Your task to perform on an android device: Open accessibility settings Image 0: 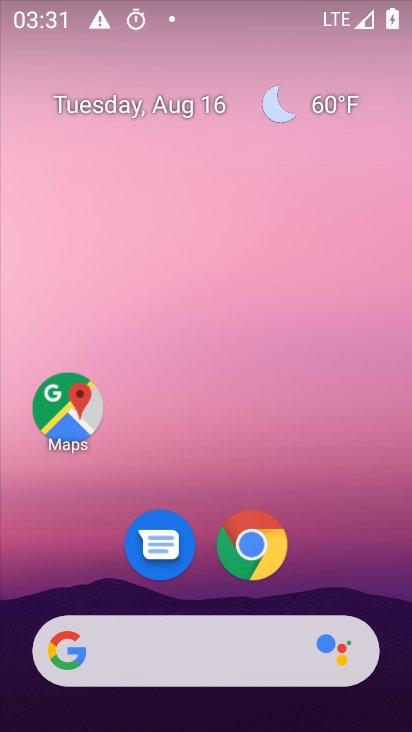
Step 0: drag from (207, 640) to (205, 299)
Your task to perform on an android device: Open accessibility settings Image 1: 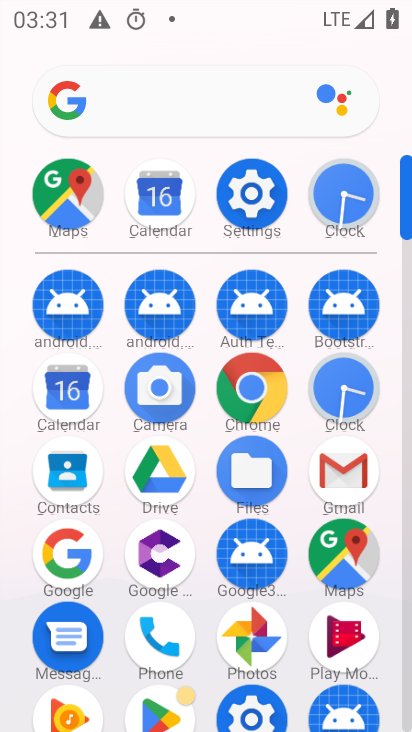
Step 1: click (240, 191)
Your task to perform on an android device: Open accessibility settings Image 2: 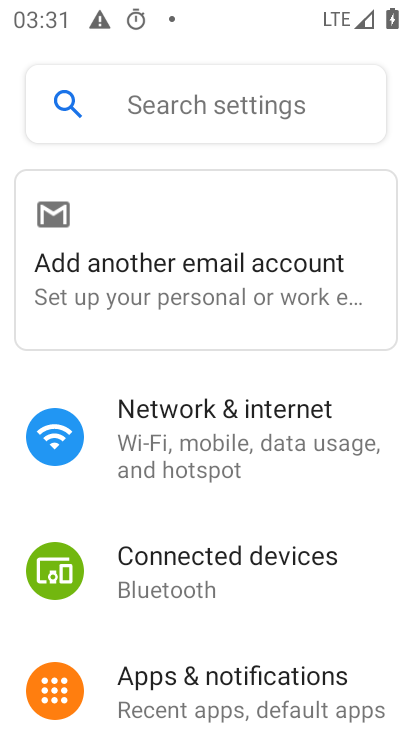
Step 2: drag from (209, 681) to (209, 419)
Your task to perform on an android device: Open accessibility settings Image 3: 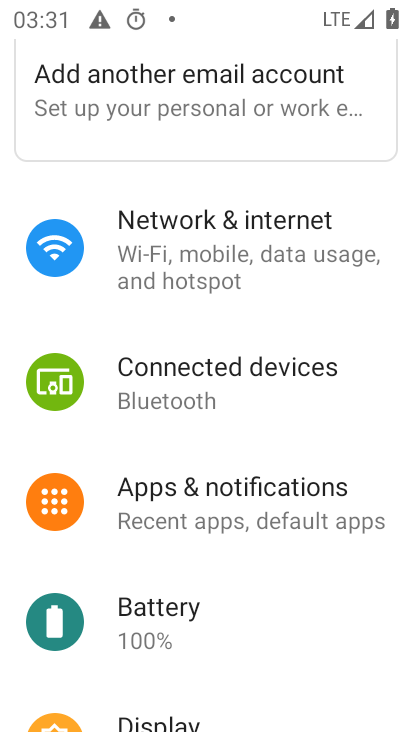
Step 3: drag from (232, 675) to (232, 467)
Your task to perform on an android device: Open accessibility settings Image 4: 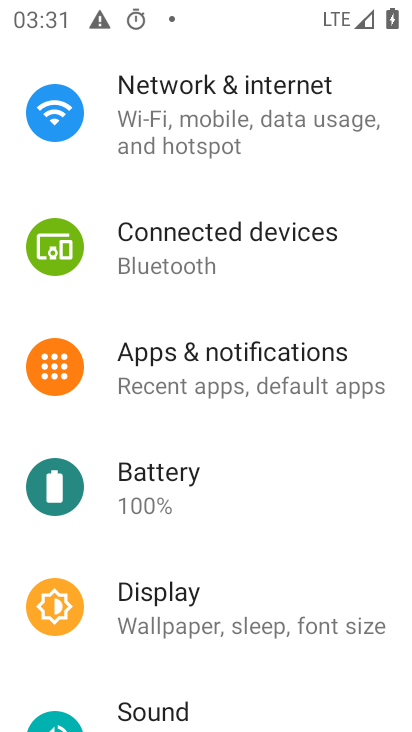
Step 4: drag from (200, 697) to (207, 401)
Your task to perform on an android device: Open accessibility settings Image 5: 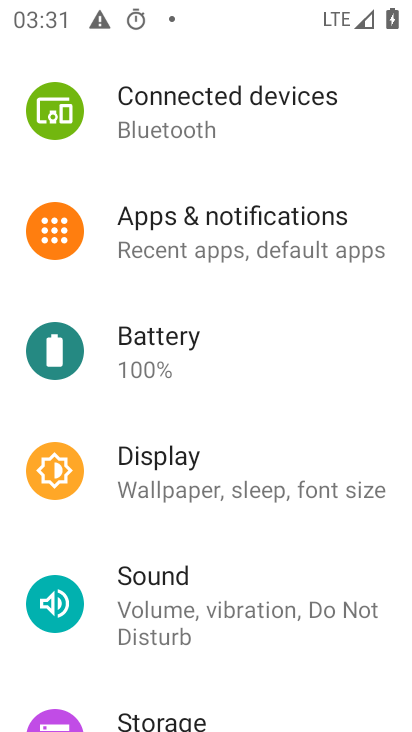
Step 5: drag from (129, 587) to (132, 293)
Your task to perform on an android device: Open accessibility settings Image 6: 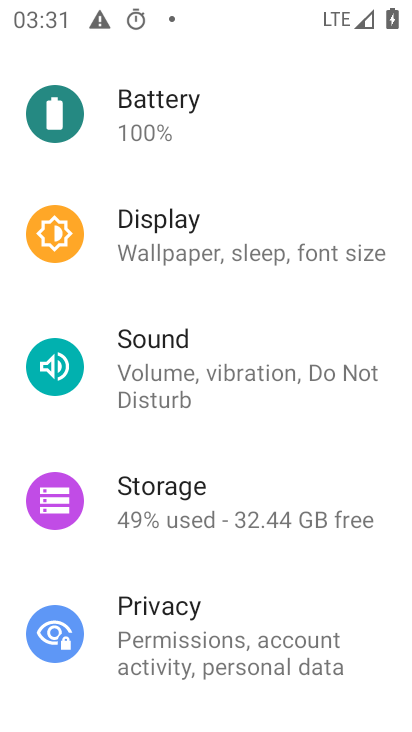
Step 6: drag from (244, 660) to (238, 216)
Your task to perform on an android device: Open accessibility settings Image 7: 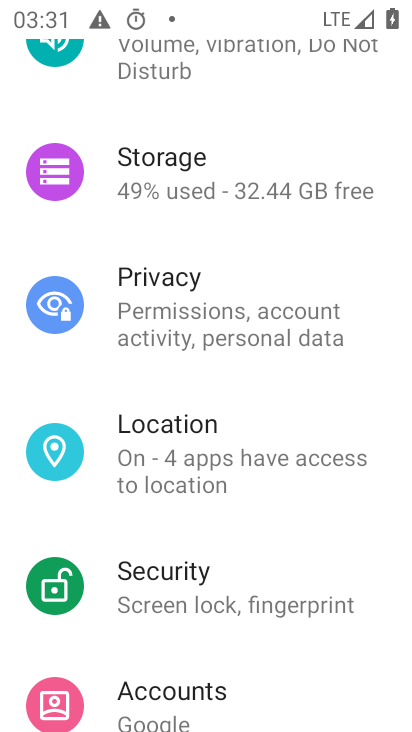
Step 7: drag from (213, 674) to (213, 205)
Your task to perform on an android device: Open accessibility settings Image 8: 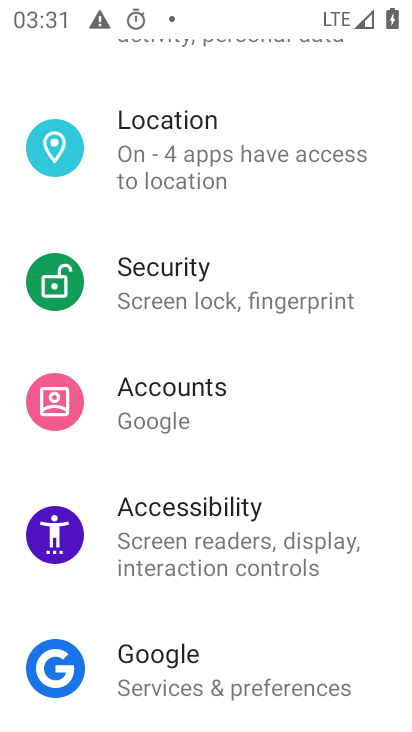
Step 8: click (208, 561)
Your task to perform on an android device: Open accessibility settings Image 9: 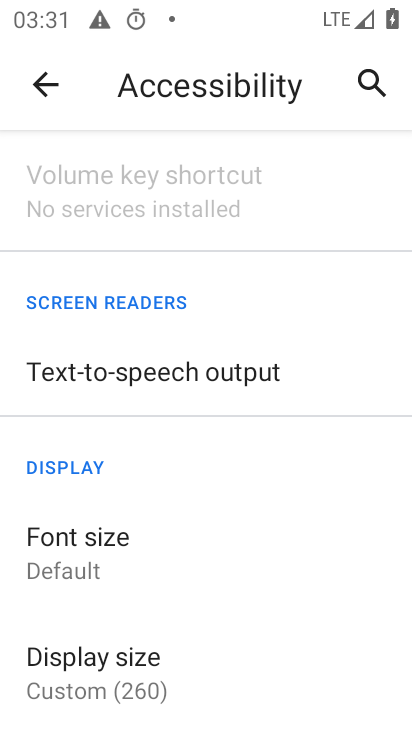
Step 9: task complete